Your task to perform on an android device: Clear all items from cart on bestbuy. Search for "bose quietcomfort 35" on bestbuy, select the first entry, add it to the cart, then select checkout. Image 0: 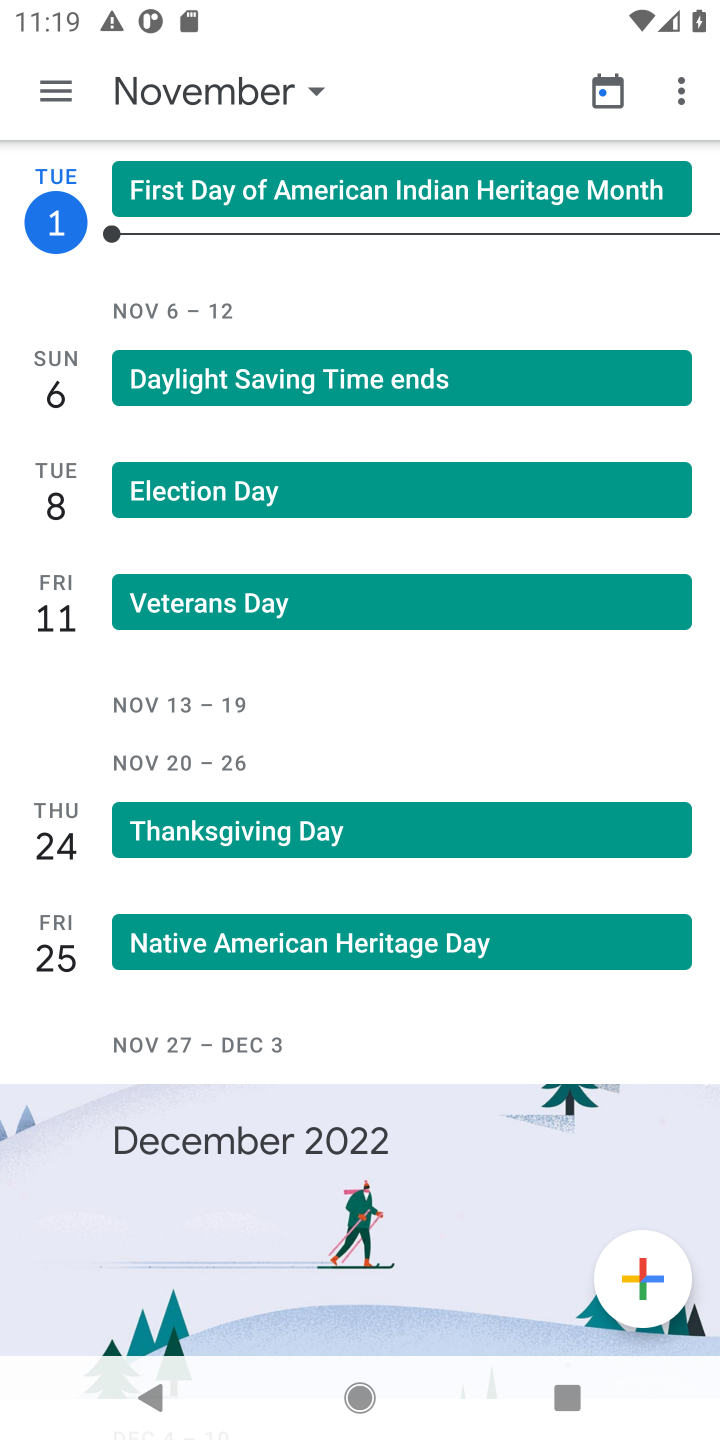
Step 0: press home button
Your task to perform on an android device: Clear all items from cart on bestbuy. Search for "bose quietcomfort 35" on bestbuy, select the first entry, add it to the cart, then select checkout. Image 1: 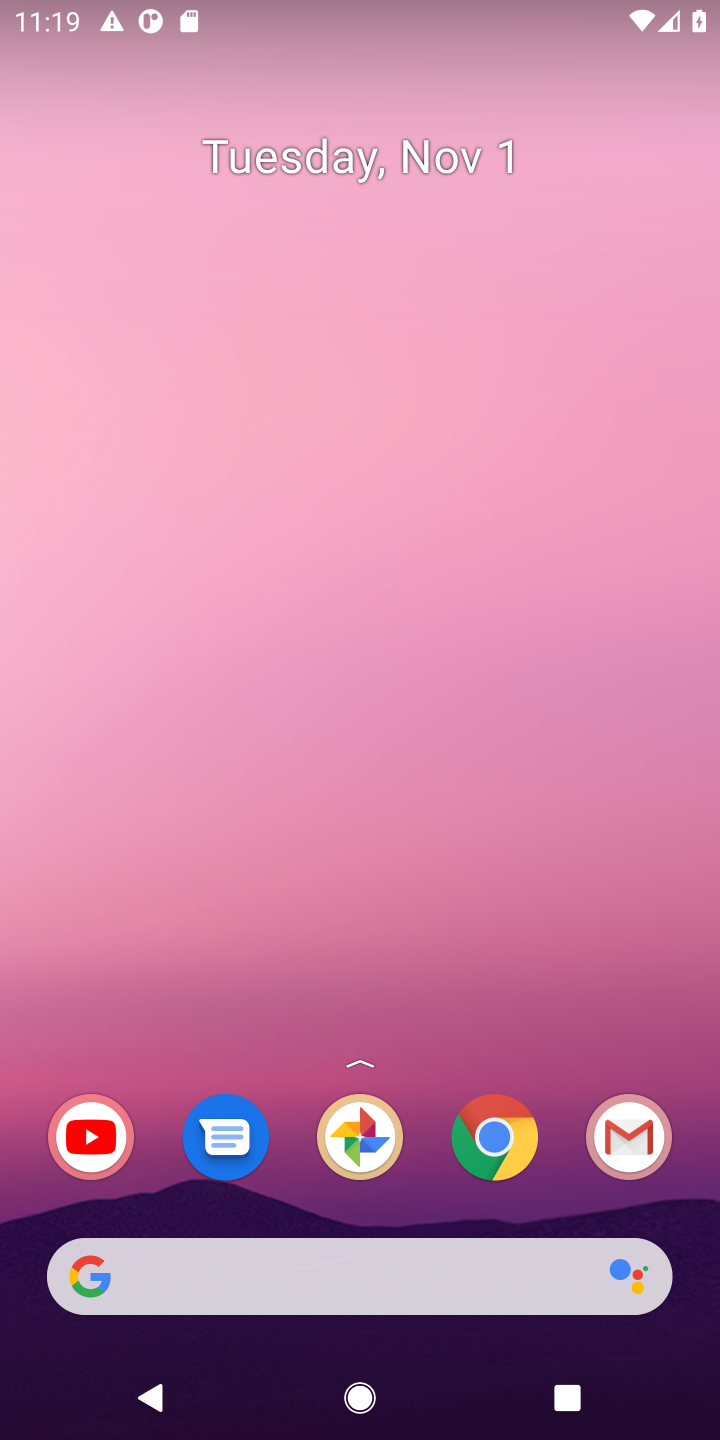
Step 1: click (318, 1268)
Your task to perform on an android device: Clear all items from cart on bestbuy. Search for "bose quietcomfort 35" on bestbuy, select the first entry, add it to the cart, then select checkout. Image 2: 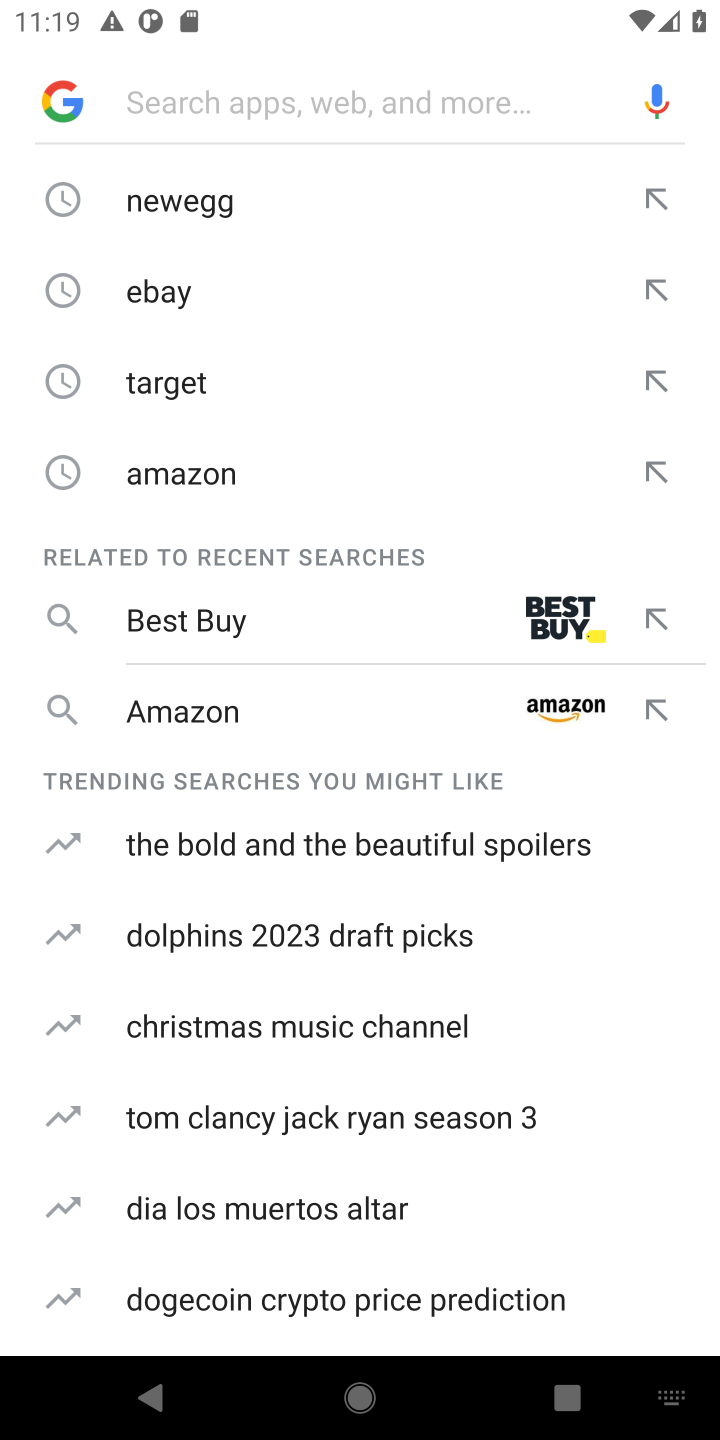
Step 2: click (203, 618)
Your task to perform on an android device: Clear all items from cart on bestbuy. Search for "bose quietcomfort 35" on bestbuy, select the first entry, add it to the cart, then select checkout. Image 3: 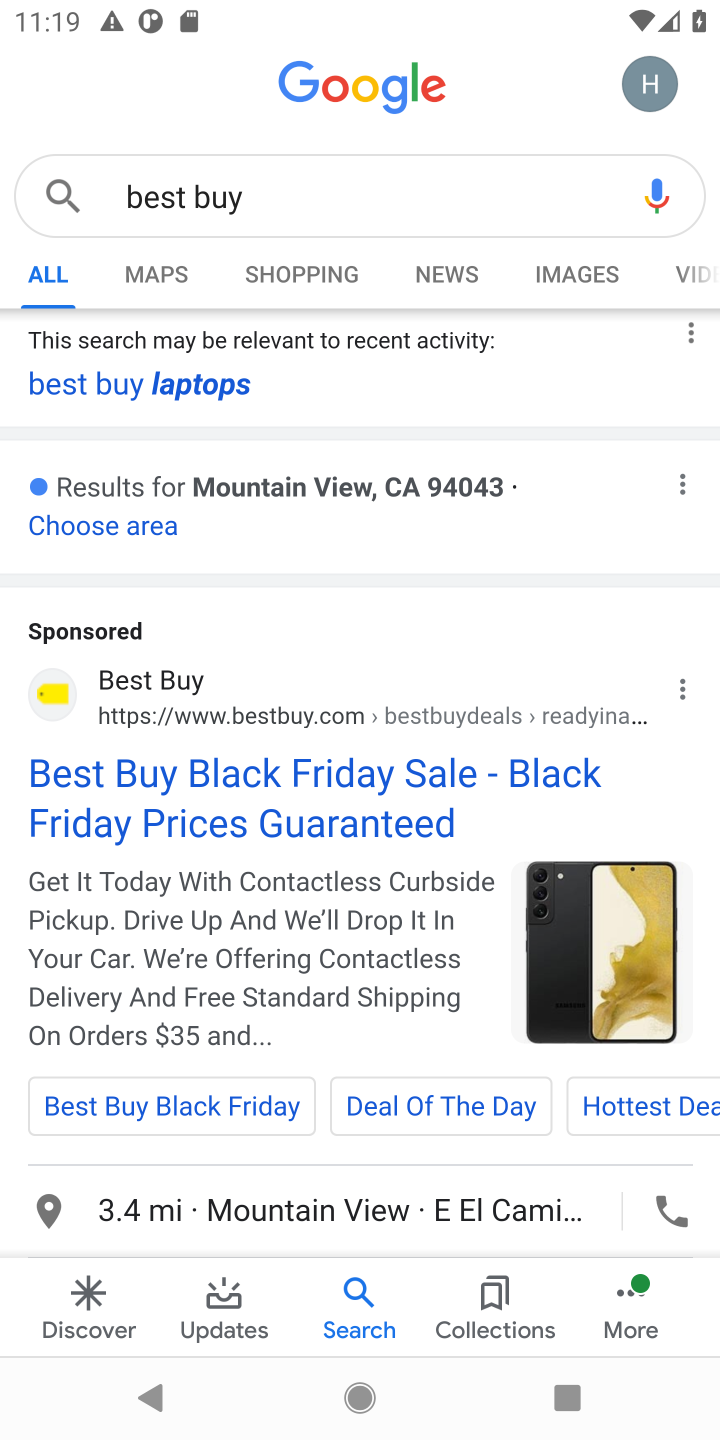
Step 3: click (151, 683)
Your task to perform on an android device: Clear all items from cart on bestbuy. Search for "bose quietcomfort 35" on bestbuy, select the first entry, add it to the cart, then select checkout. Image 4: 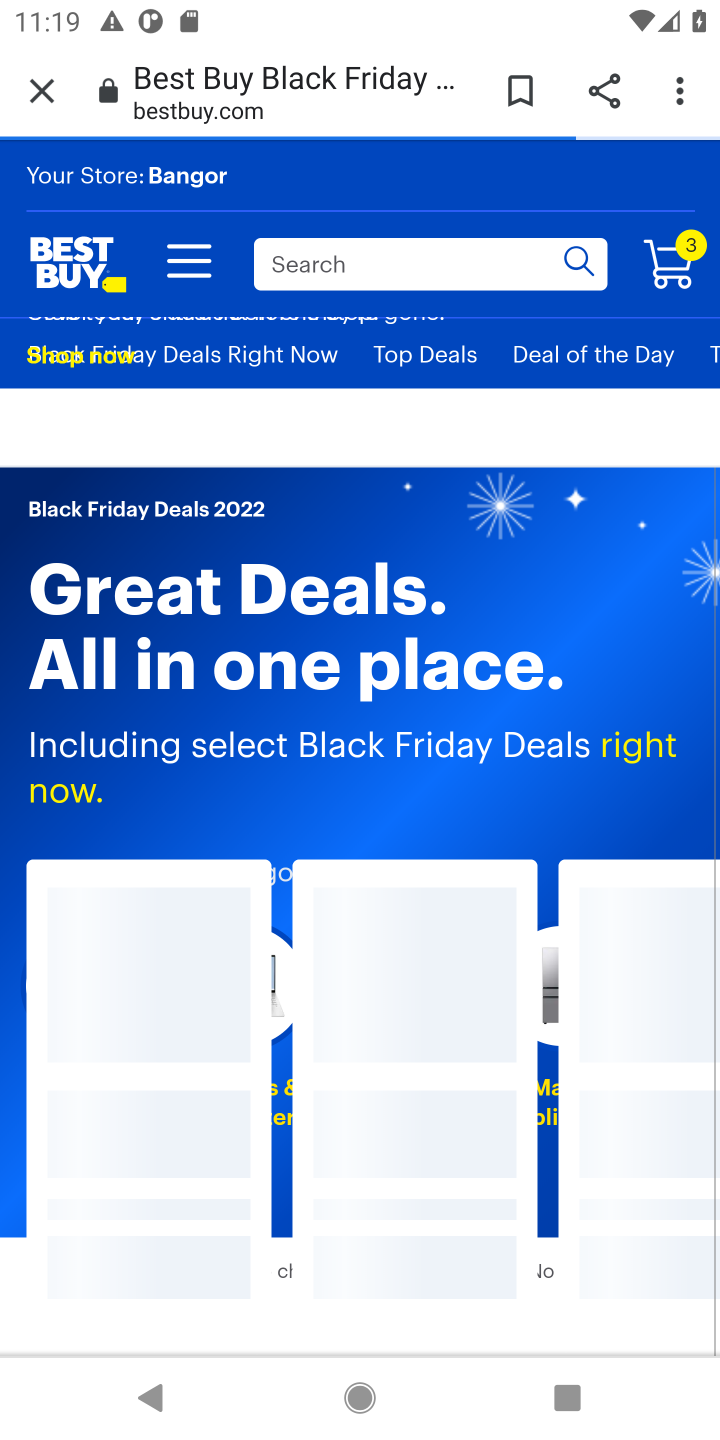
Step 4: click (346, 262)
Your task to perform on an android device: Clear all items from cart on bestbuy. Search for "bose quietcomfort 35" on bestbuy, select the first entry, add it to the cart, then select checkout. Image 5: 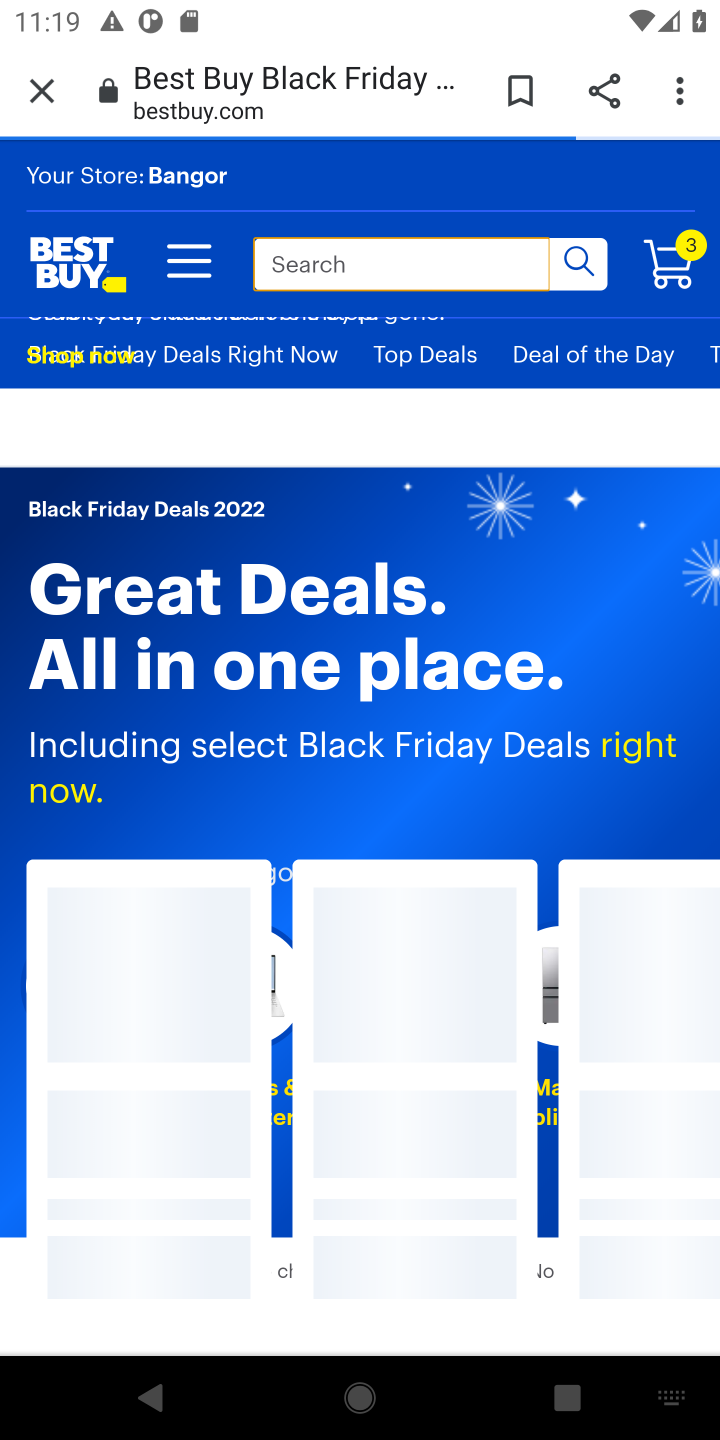
Step 5: click (674, 248)
Your task to perform on an android device: Clear all items from cart on bestbuy. Search for "bose quietcomfort 35" on bestbuy, select the first entry, add it to the cart, then select checkout. Image 6: 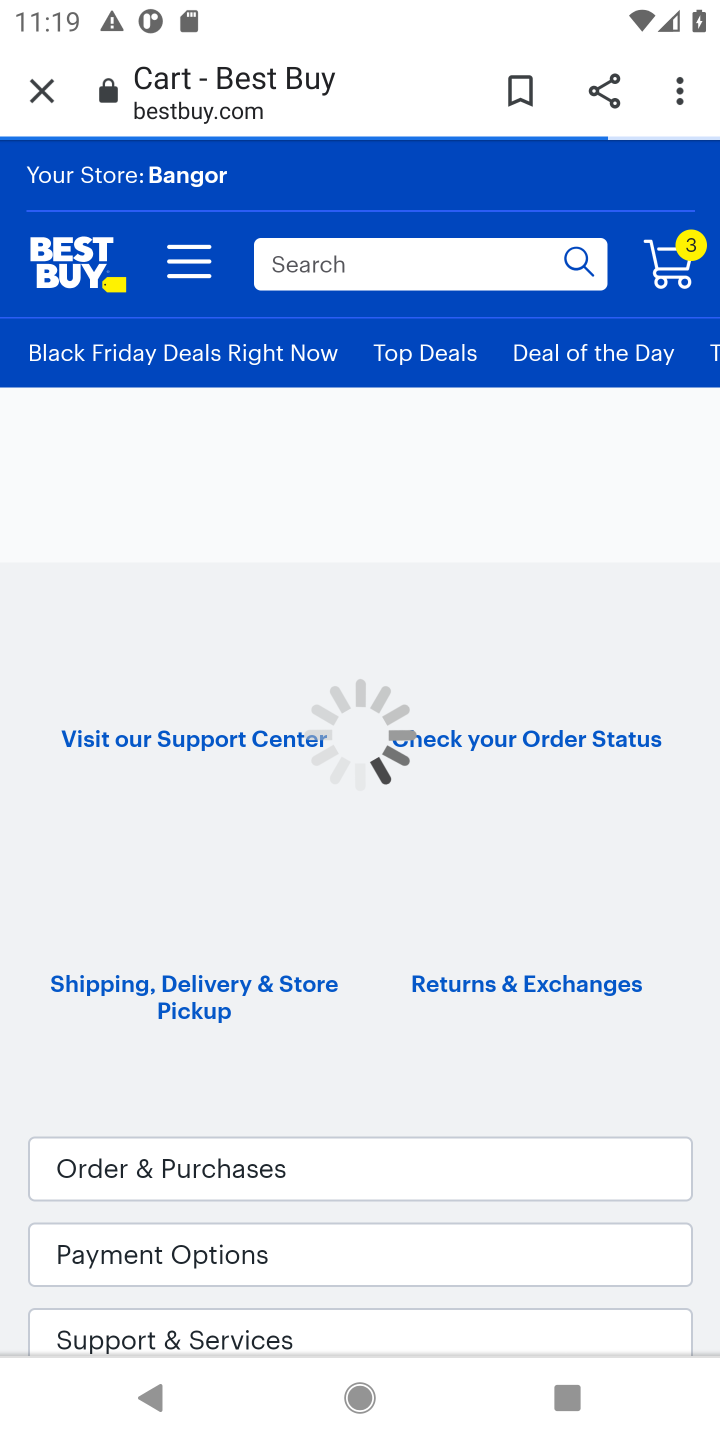
Step 6: click (681, 264)
Your task to perform on an android device: Clear all items from cart on bestbuy. Search for "bose quietcomfort 35" on bestbuy, select the first entry, add it to the cart, then select checkout. Image 7: 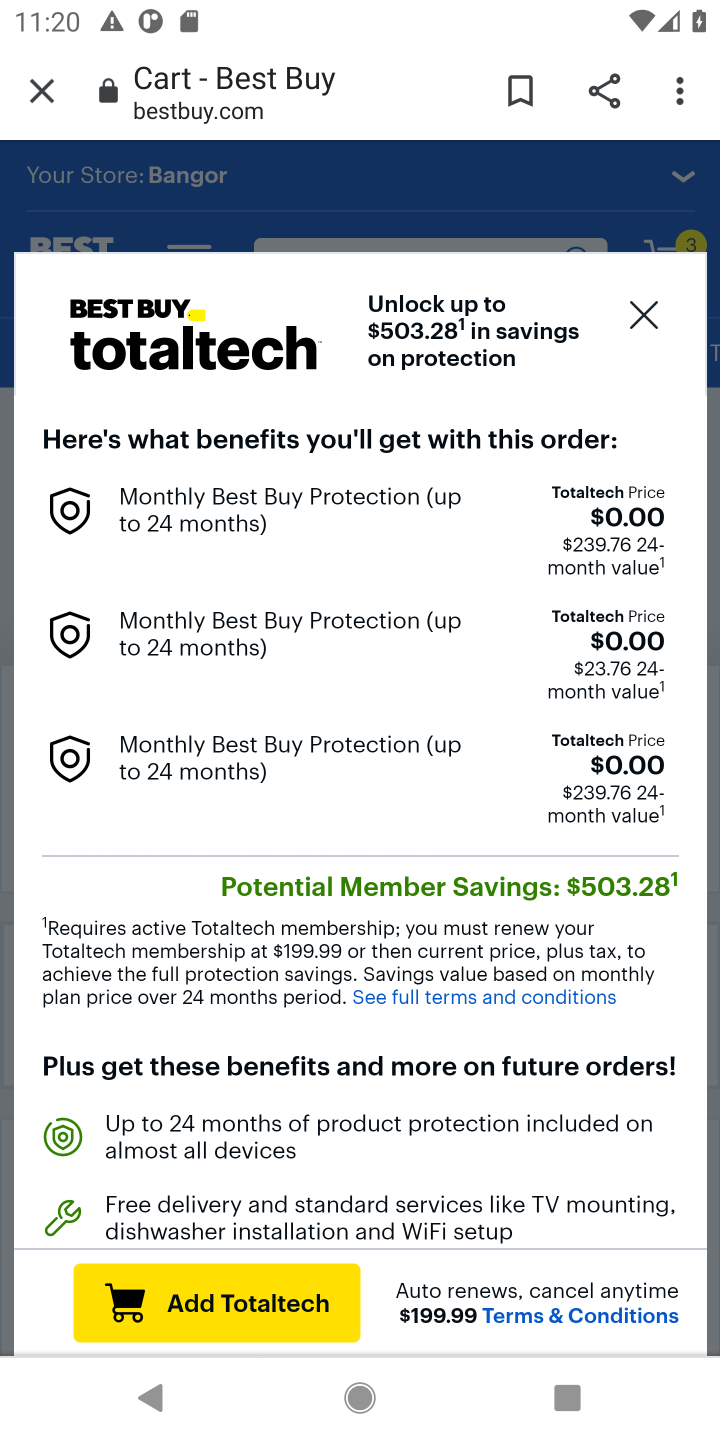
Step 7: click (649, 312)
Your task to perform on an android device: Clear all items from cart on bestbuy. Search for "bose quietcomfort 35" on bestbuy, select the first entry, add it to the cart, then select checkout. Image 8: 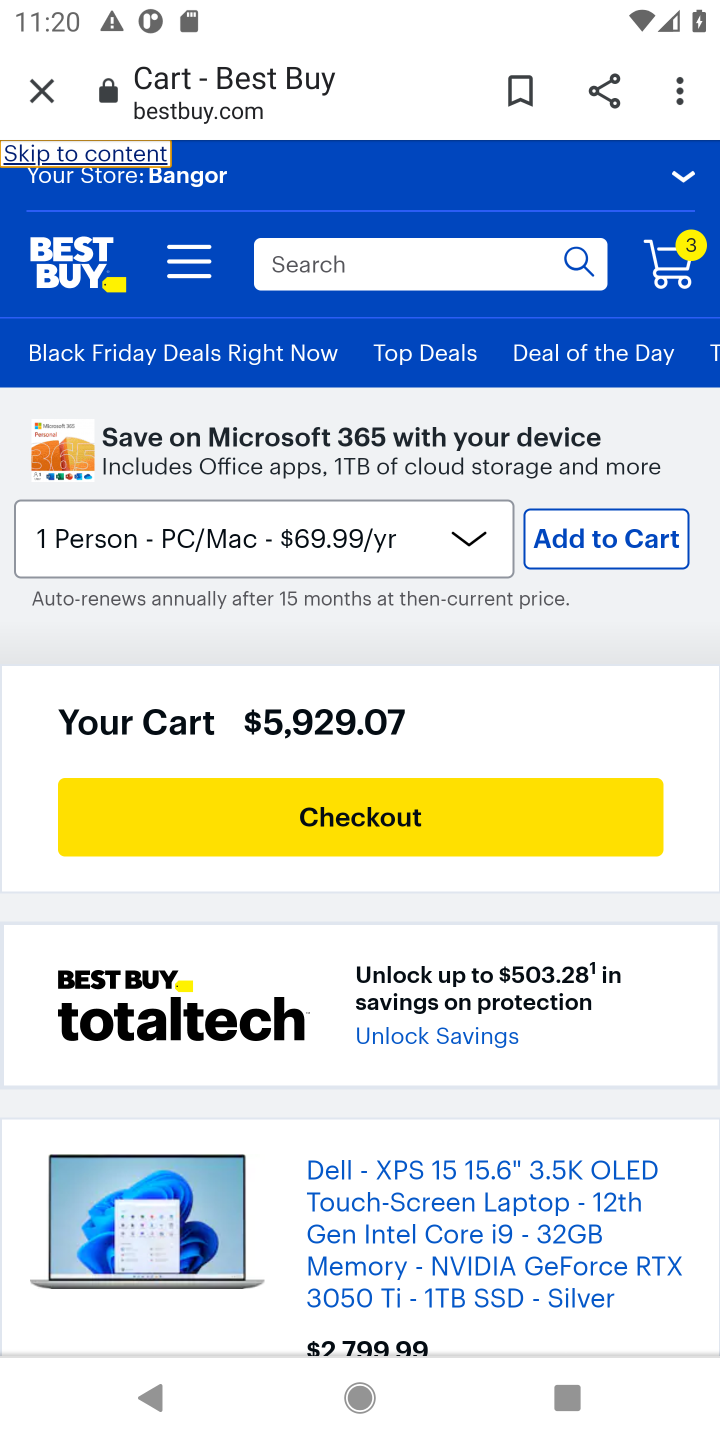
Step 8: click (676, 272)
Your task to perform on an android device: Clear all items from cart on bestbuy. Search for "bose quietcomfort 35" on bestbuy, select the first entry, add it to the cart, then select checkout. Image 9: 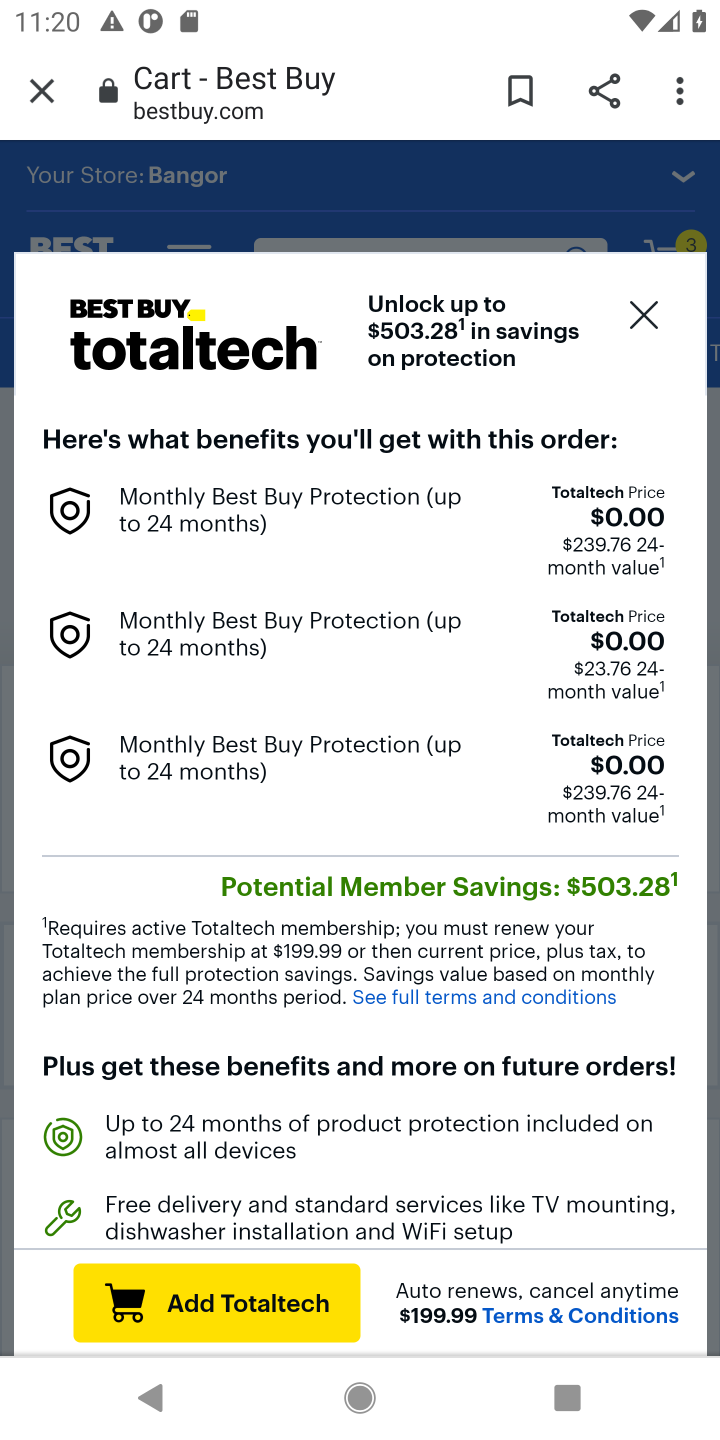
Step 9: click (640, 310)
Your task to perform on an android device: Clear all items from cart on bestbuy. Search for "bose quietcomfort 35" on bestbuy, select the first entry, add it to the cart, then select checkout. Image 10: 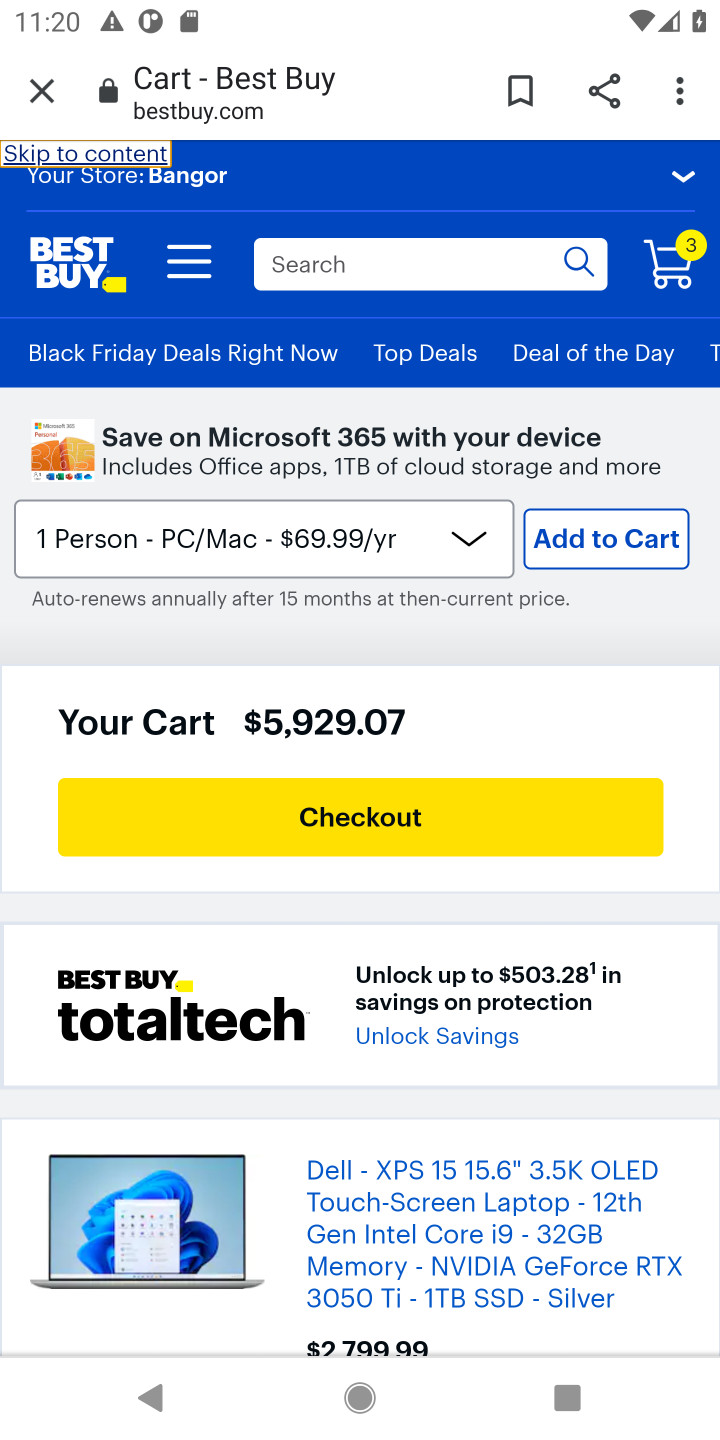
Step 10: drag from (368, 1106) to (366, 773)
Your task to perform on an android device: Clear all items from cart on bestbuy. Search for "bose quietcomfort 35" on bestbuy, select the first entry, add it to the cart, then select checkout. Image 11: 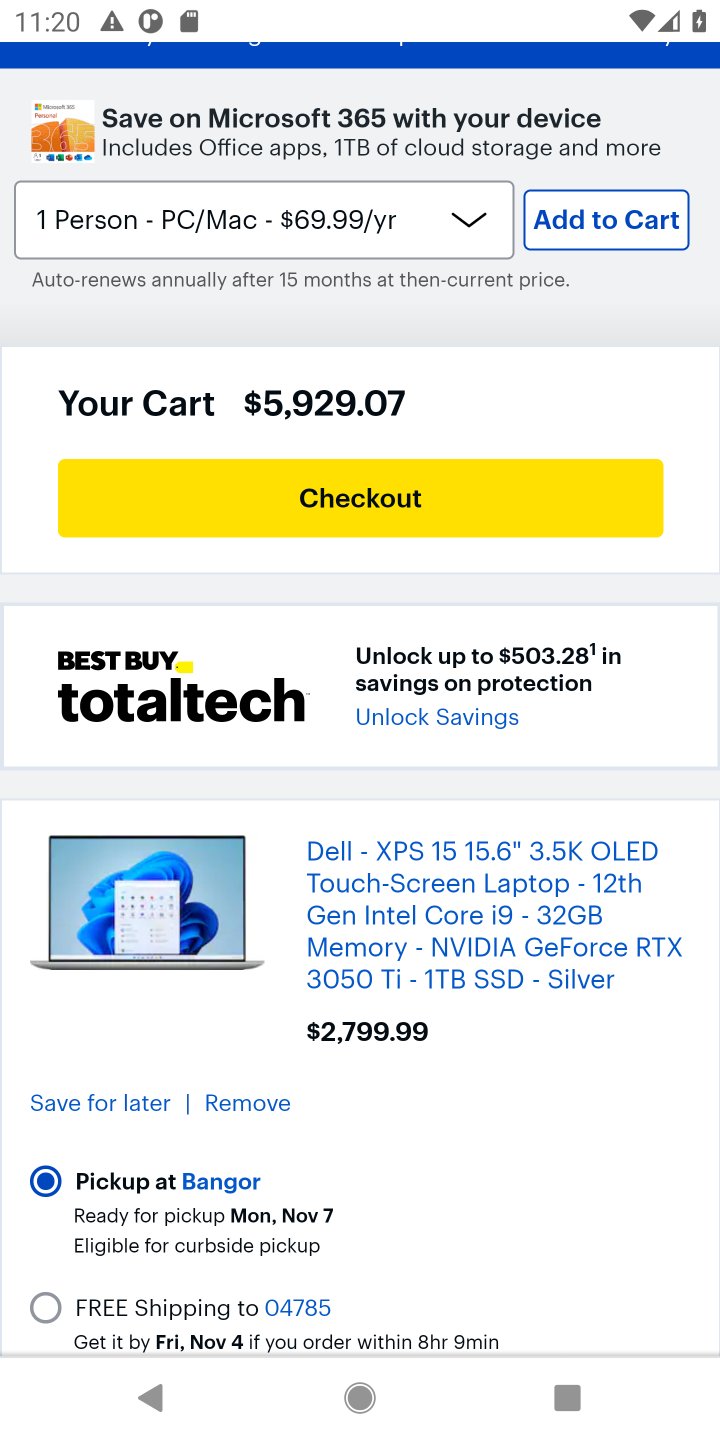
Step 11: drag from (446, 1154) to (443, 766)
Your task to perform on an android device: Clear all items from cart on bestbuy. Search for "bose quietcomfort 35" on bestbuy, select the first entry, add it to the cart, then select checkout. Image 12: 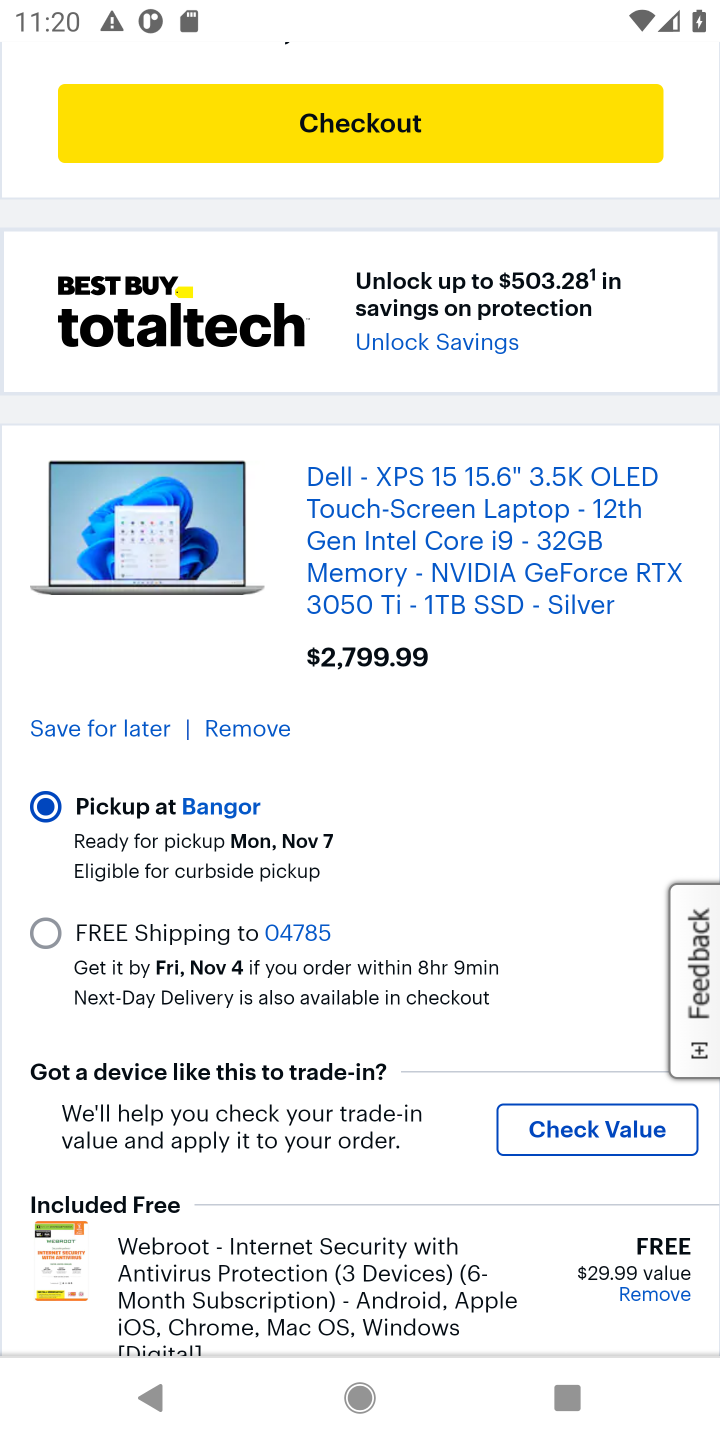
Step 12: click (236, 720)
Your task to perform on an android device: Clear all items from cart on bestbuy. Search for "bose quietcomfort 35" on bestbuy, select the first entry, add it to the cart, then select checkout. Image 13: 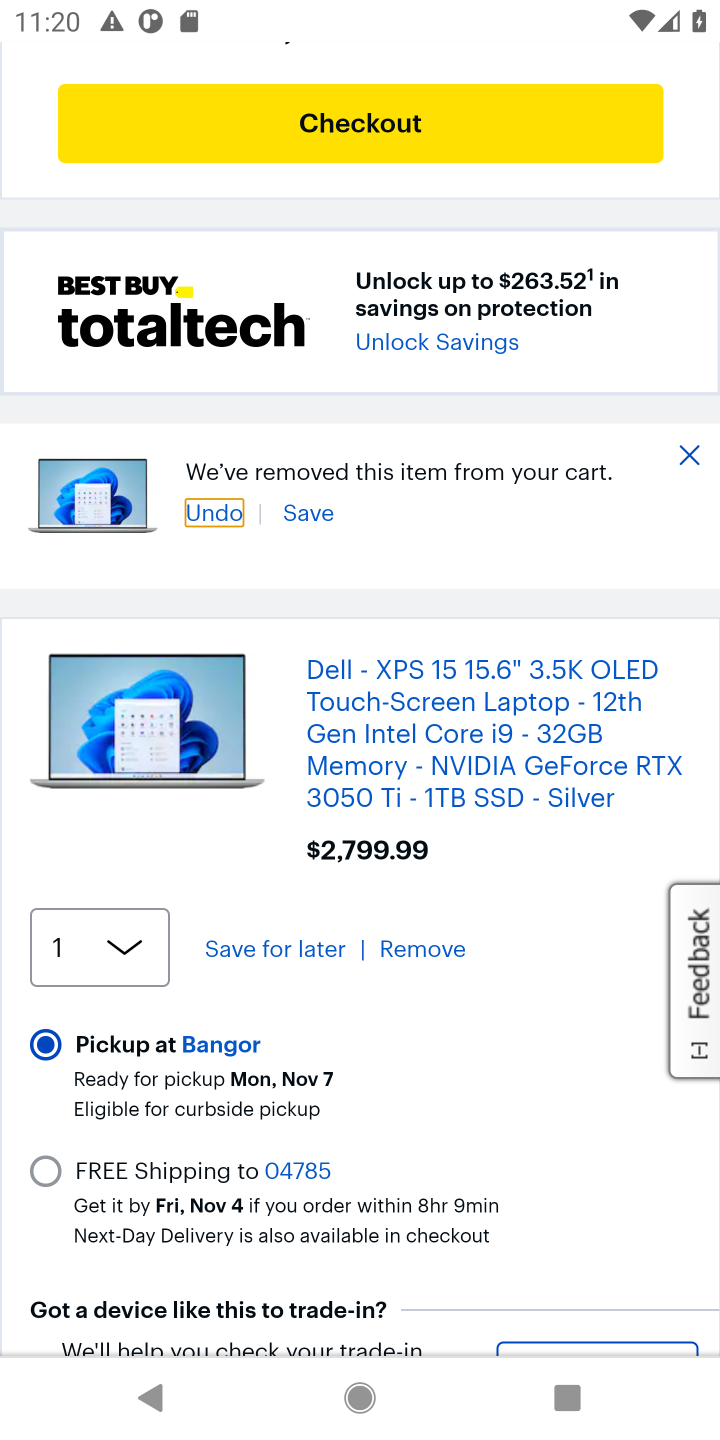
Step 13: click (393, 931)
Your task to perform on an android device: Clear all items from cart on bestbuy. Search for "bose quietcomfort 35" on bestbuy, select the first entry, add it to the cart, then select checkout. Image 14: 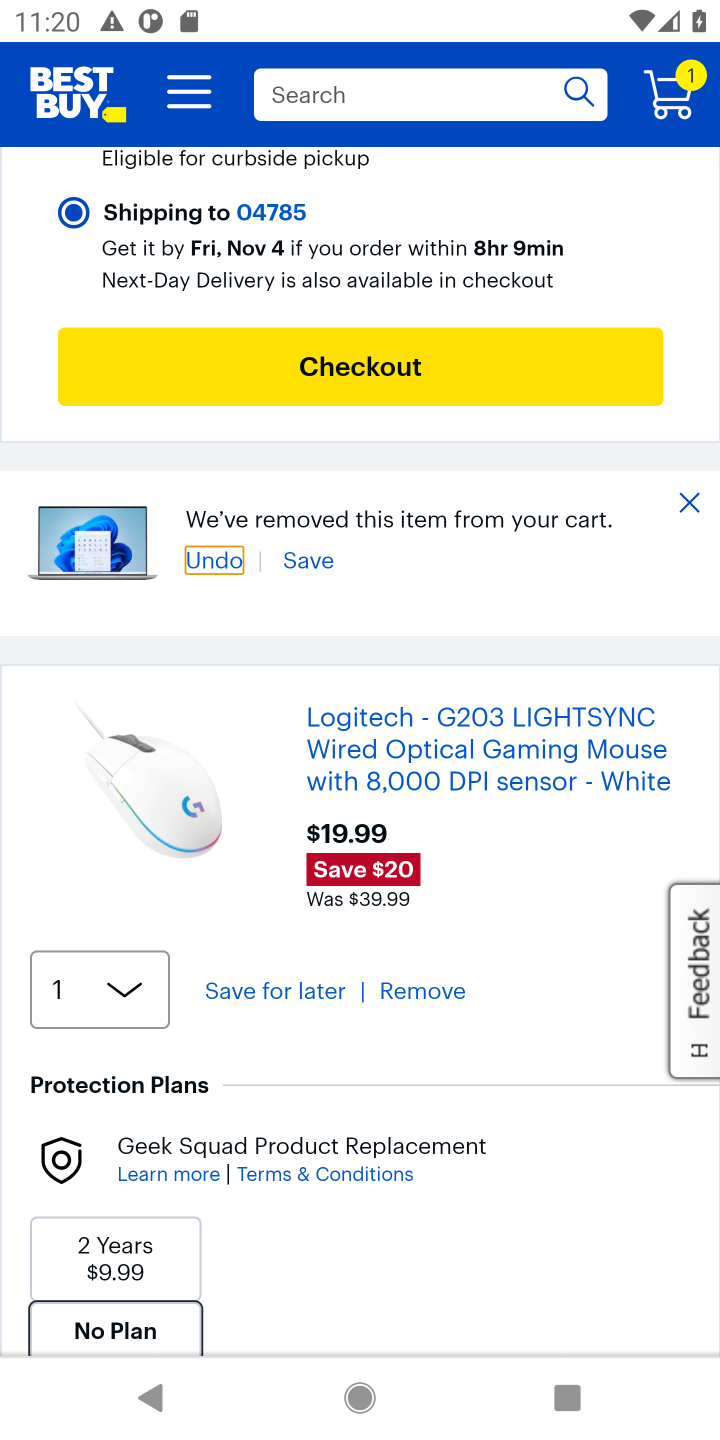
Step 14: click (396, 995)
Your task to perform on an android device: Clear all items from cart on bestbuy. Search for "bose quietcomfort 35" on bestbuy, select the first entry, add it to the cart, then select checkout. Image 15: 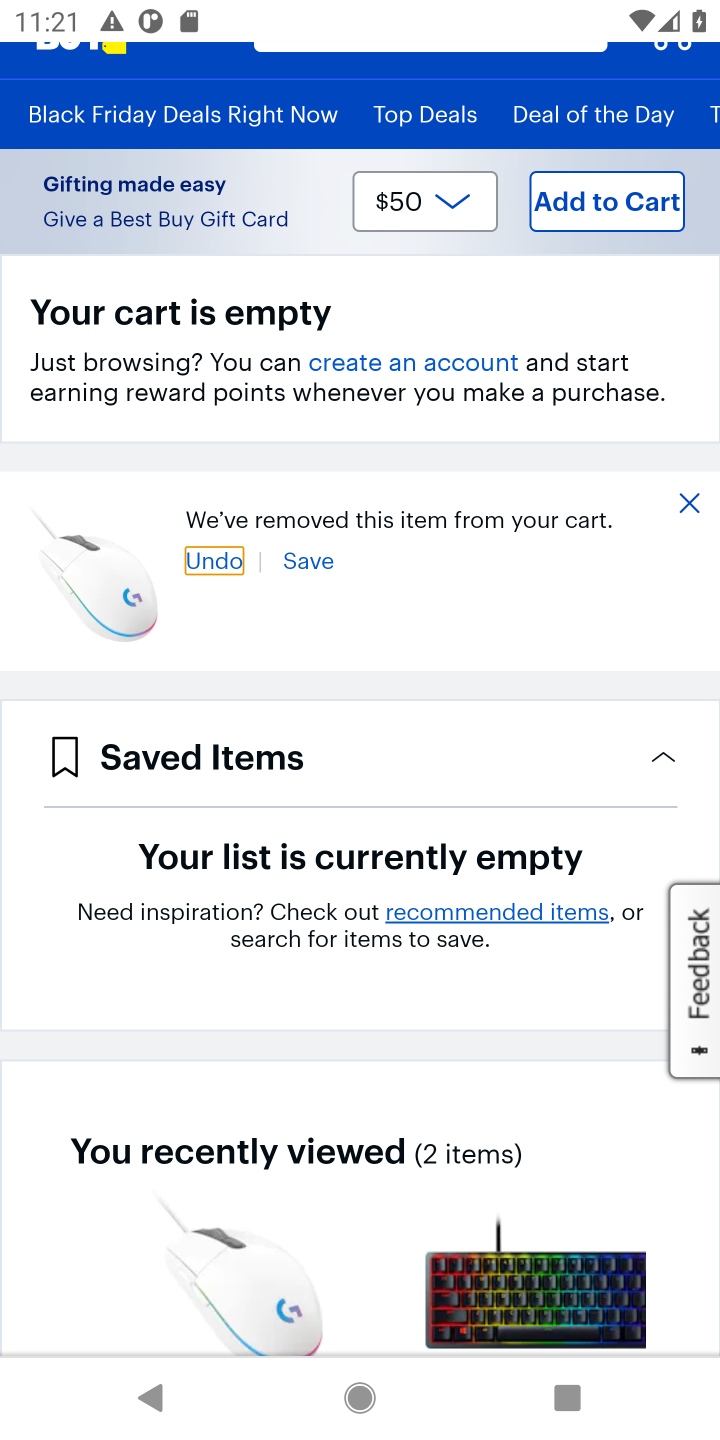
Step 15: click (685, 500)
Your task to perform on an android device: Clear all items from cart on bestbuy. Search for "bose quietcomfort 35" on bestbuy, select the first entry, add it to the cart, then select checkout. Image 16: 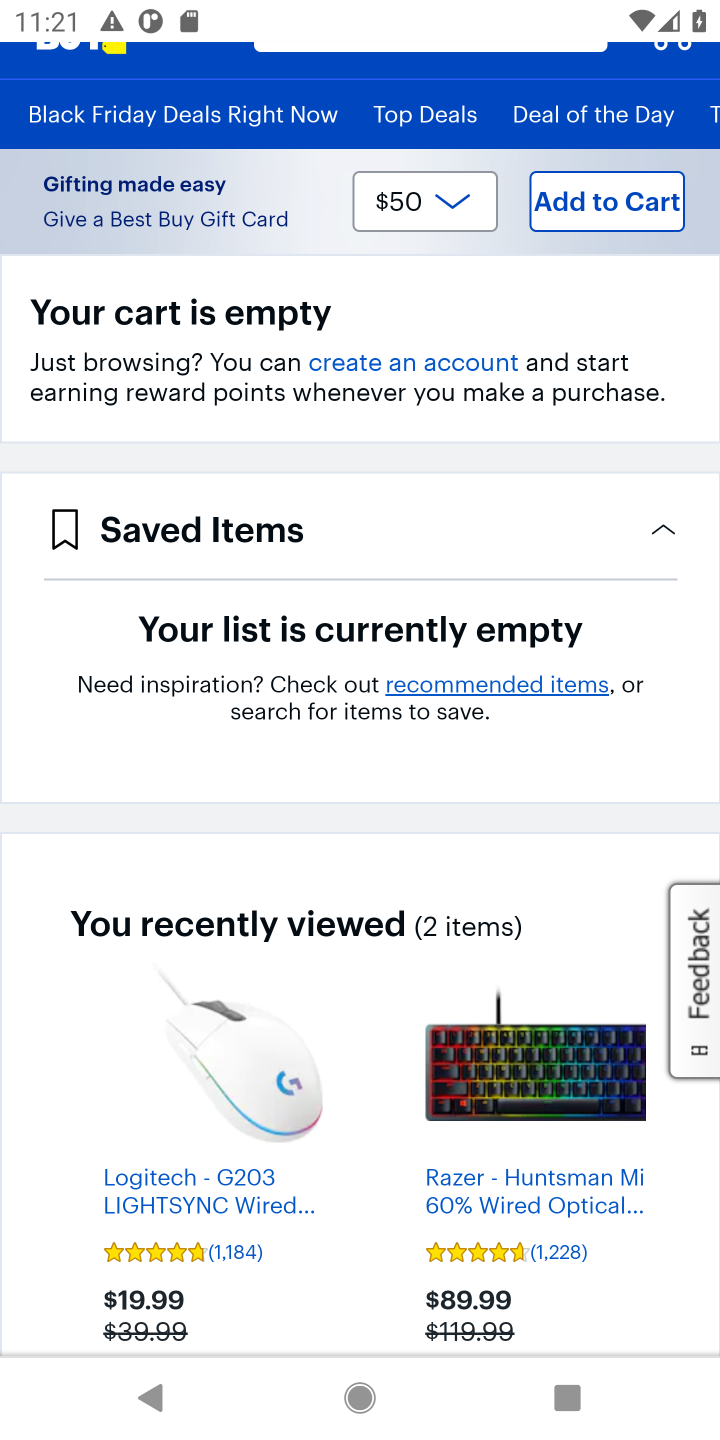
Step 16: drag from (517, 695) to (511, 950)
Your task to perform on an android device: Clear all items from cart on bestbuy. Search for "bose quietcomfort 35" on bestbuy, select the first entry, add it to the cart, then select checkout. Image 17: 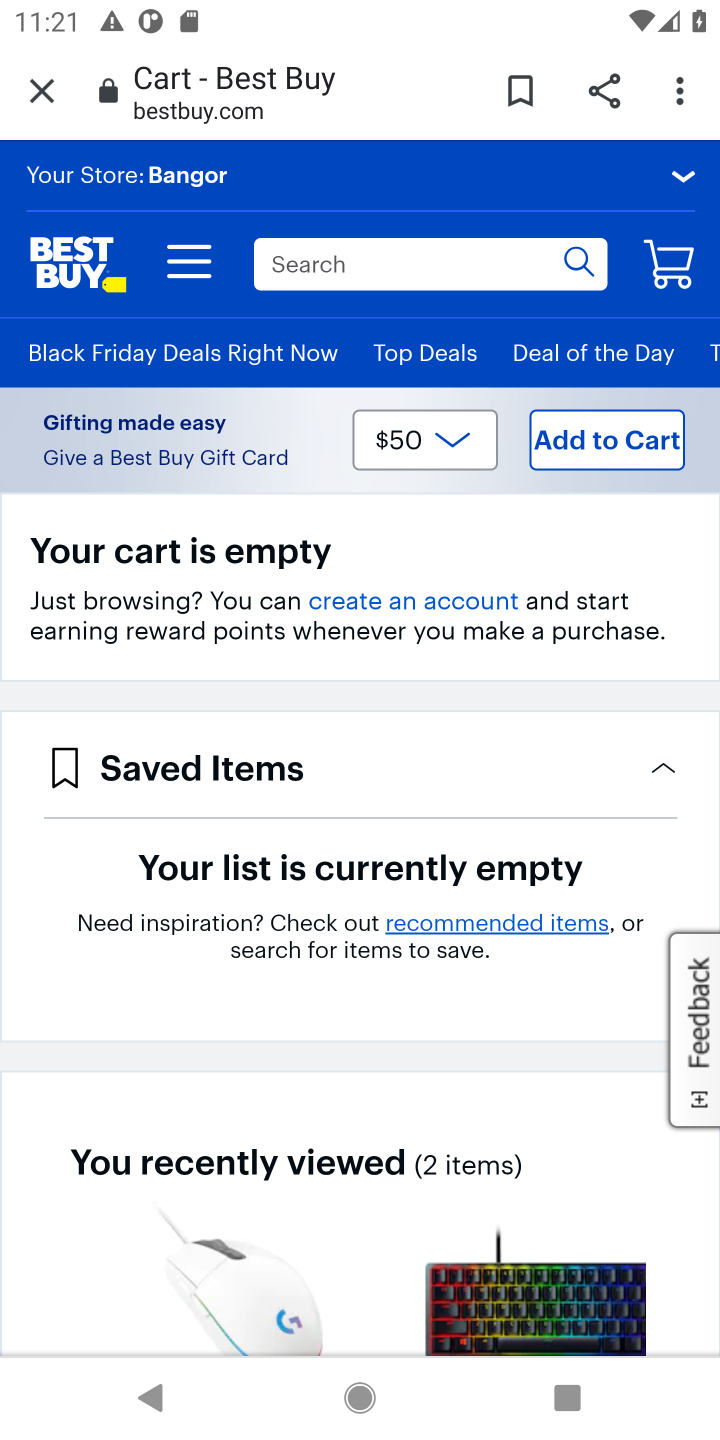
Step 17: click (545, 260)
Your task to perform on an android device: Clear all items from cart on bestbuy. Search for "bose quietcomfort 35" on bestbuy, select the first entry, add it to the cart, then select checkout. Image 18: 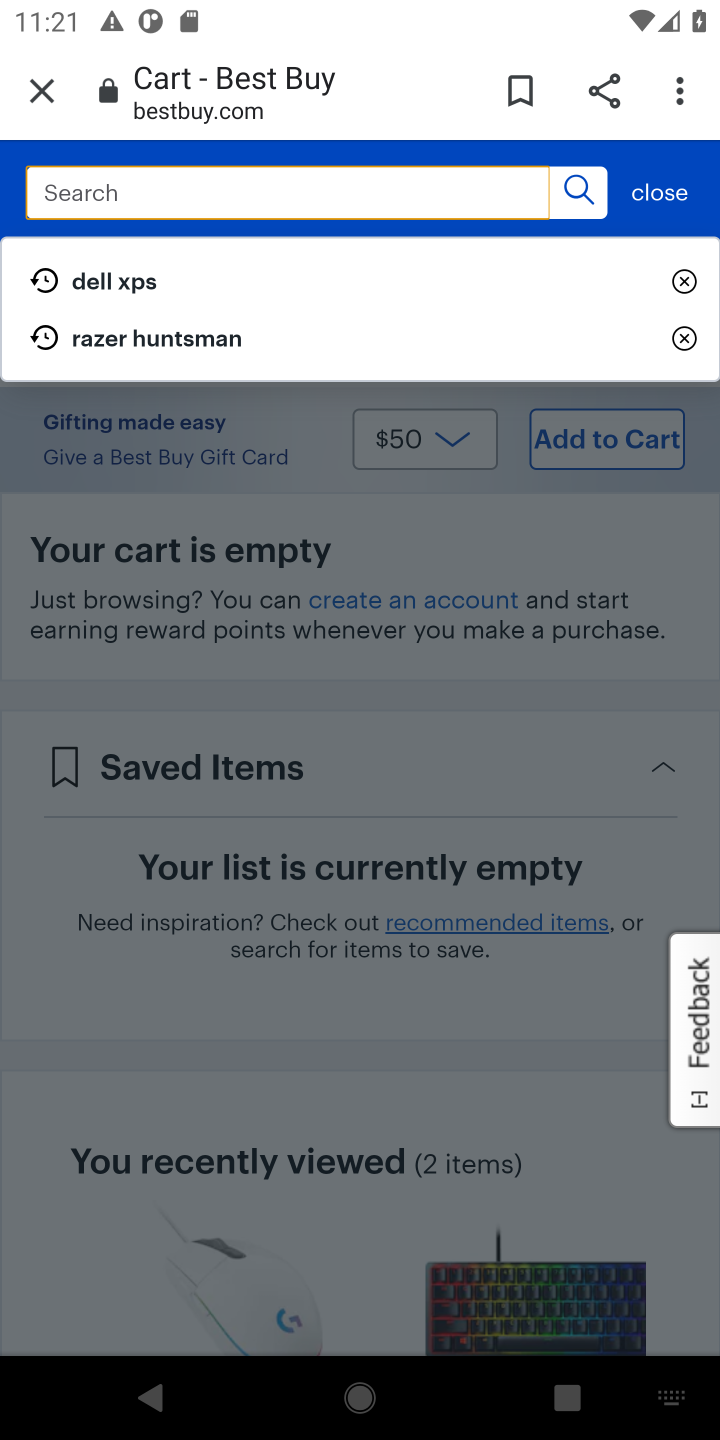
Step 18: type ""bose quietcomfort 35""
Your task to perform on an android device: Clear all items from cart on bestbuy. Search for "bose quietcomfort 35" on bestbuy, select the first entry, add it to the cart, then select checkout. Image 19: 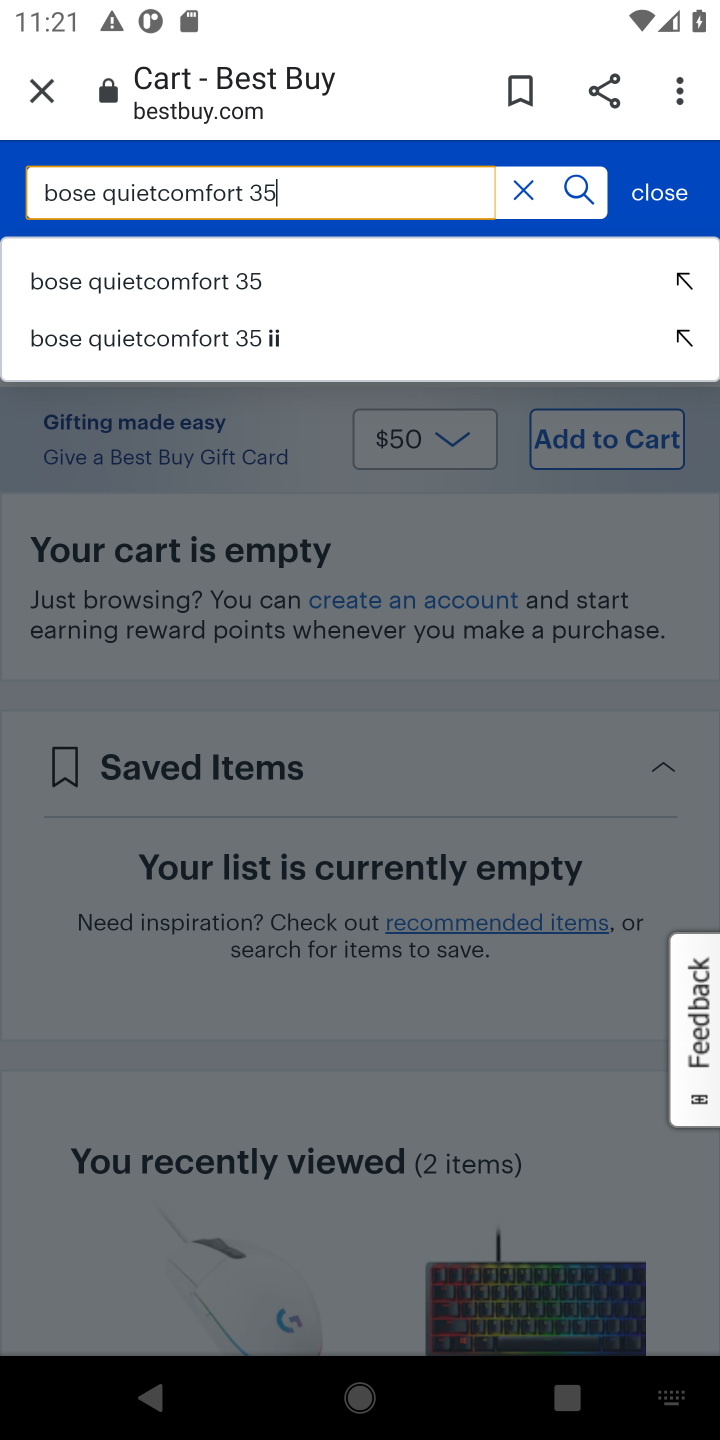
Step 19: click (217, 283)
Your task to perform on an android device: Clear all items from cart on bestbuy. Search for "bose quietcomfort 35" on bestbuy, select the first entry, add it to the cart, then select checkout. Image 20: 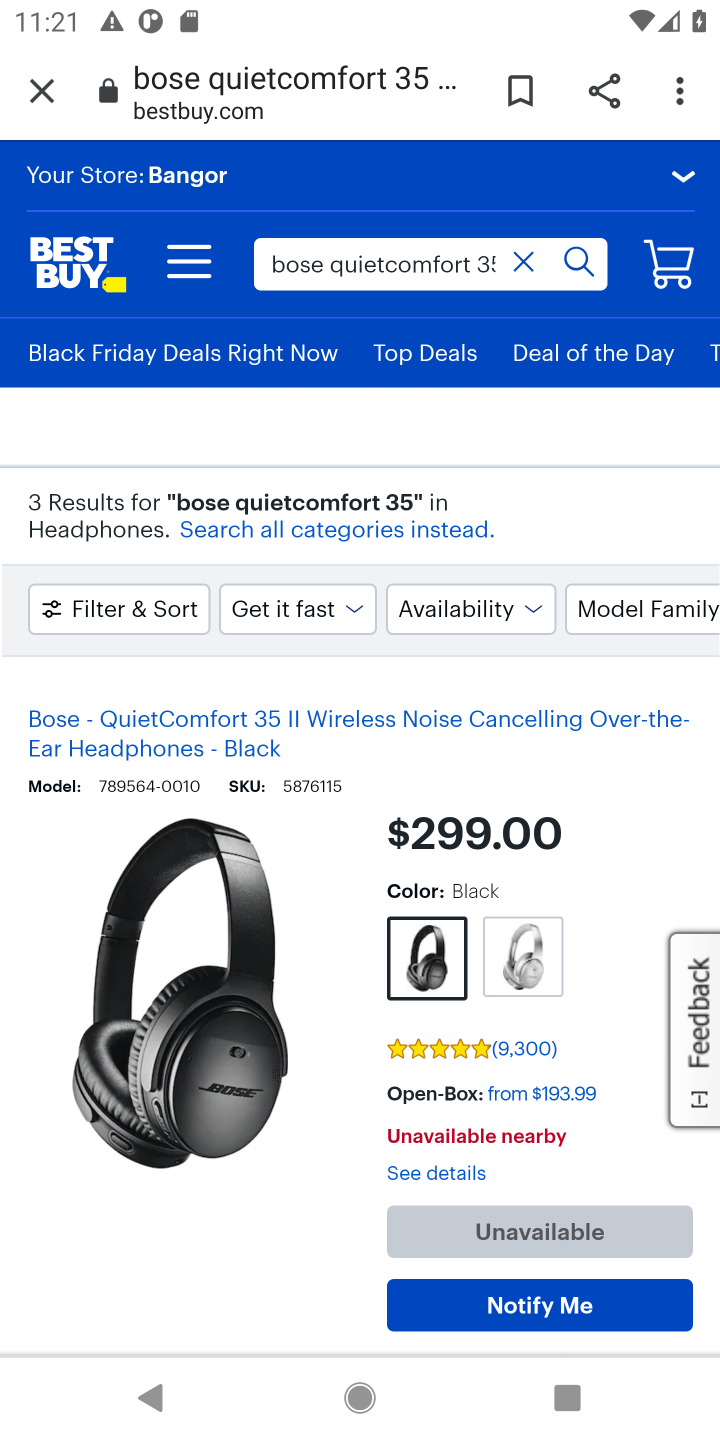
Step 20: task complete